Your task to perform on an android device: Go to wifi settings Image 0: 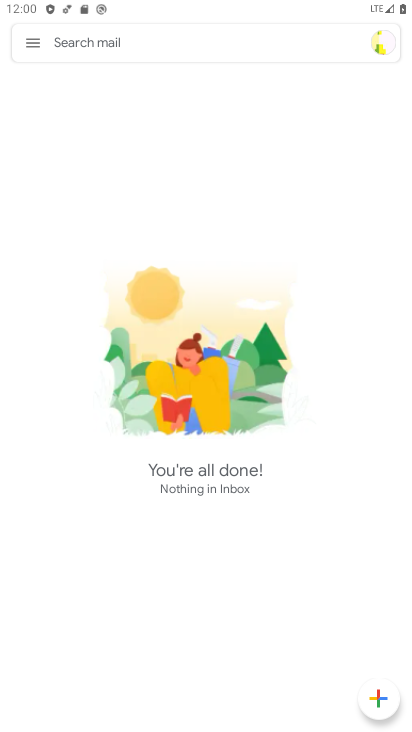
Step 0: press home button
Your task to perform on an android device: Go to wifi settings Image 1: 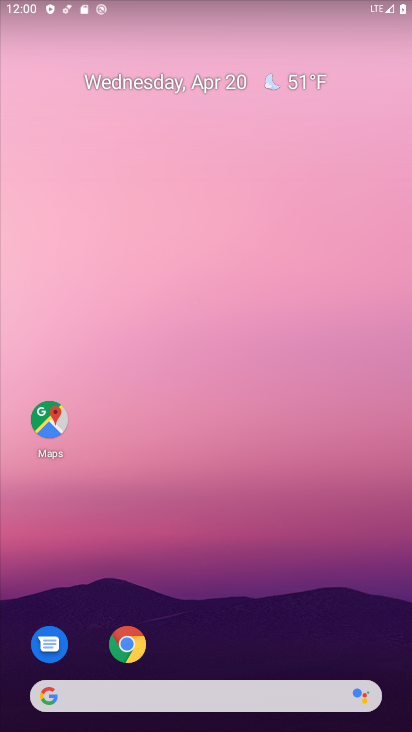
Step 1: drag from (209, 705) to (209, 148)
Your task to perform on an android device: Go to wifi settings Image 2: 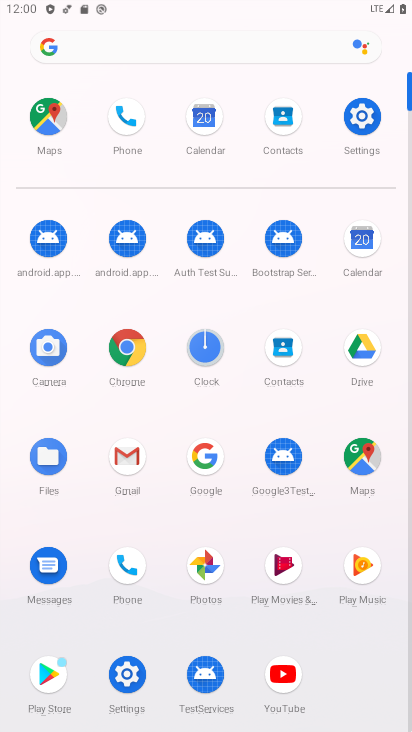
Step 2: click (366, 120)
Your task to perform on an android device: Go to wifi settings Image 3: 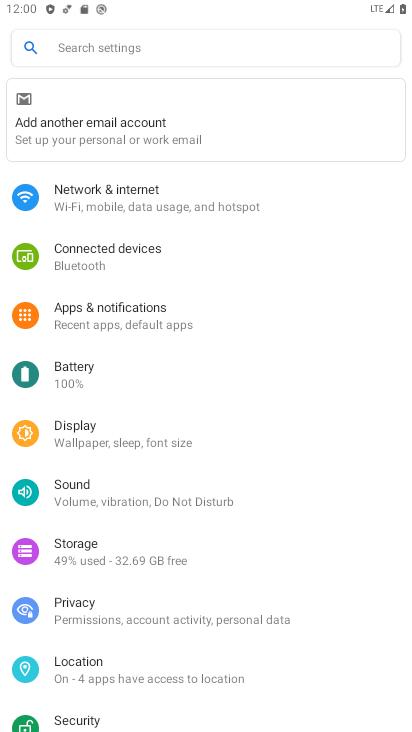
Step 3: click (98, 188)
Your task to perform on an android device: Go to wifi settings Image 4: 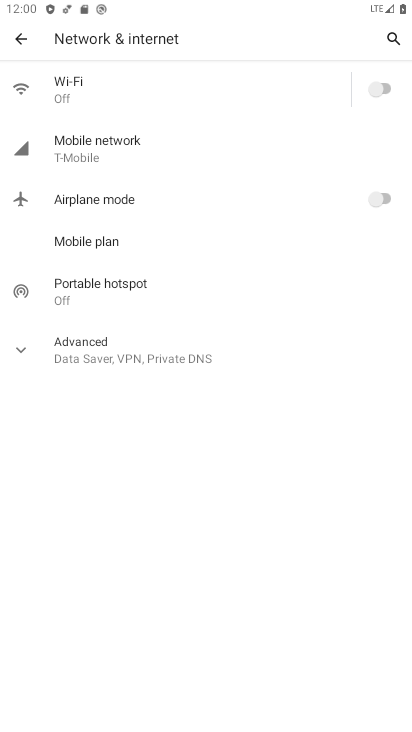
Step 4: click (63, 83)
Your task to perform on an android device: Go to wifi settings Image 5: 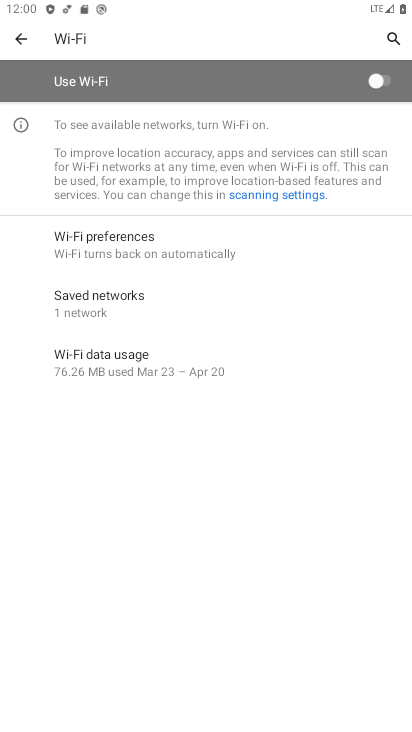
Step 5: task complete